Your task to perform on an android device: Open notification settings Image 0: 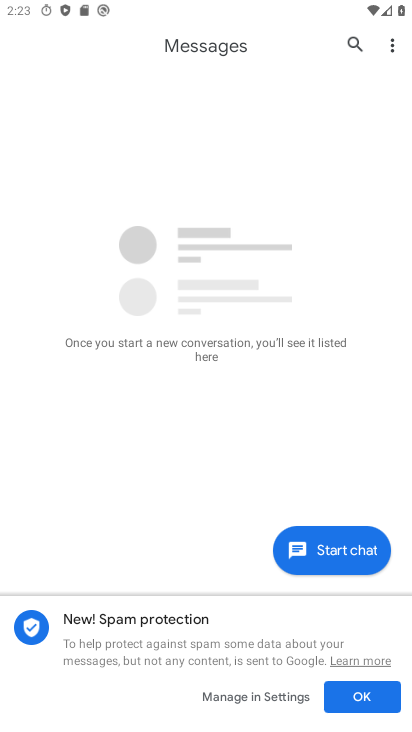
Step 0: press home button
Your task to perform on an android device: Open notification settings Image 1: 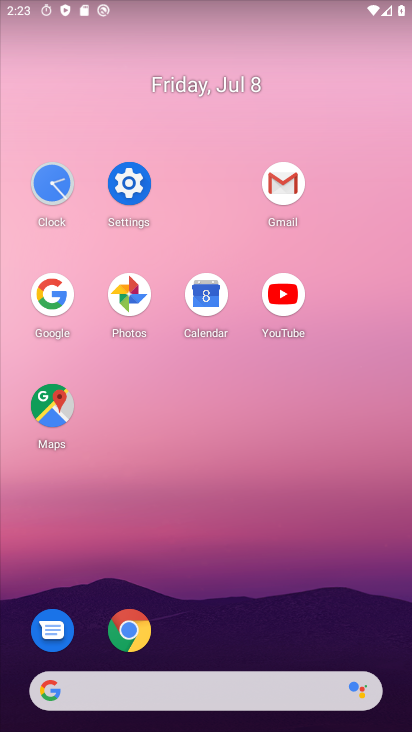
Step 1: click (137, 204)
Your task to perform on an android device: Open notification settings Image 2: 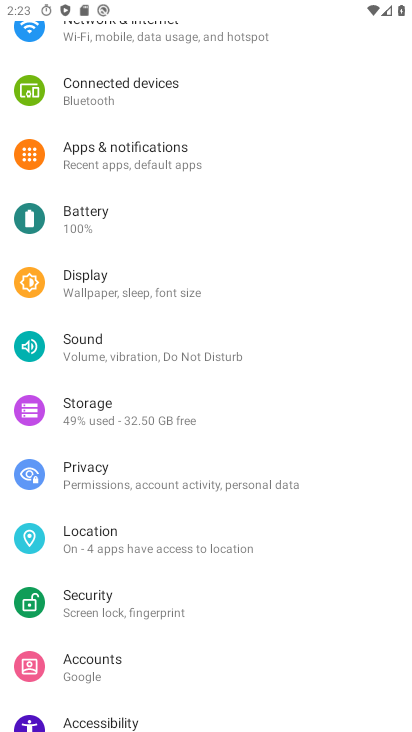
Step 2: click (182, 156)
Your task to perform on an android device: Open notification settings Image 3: 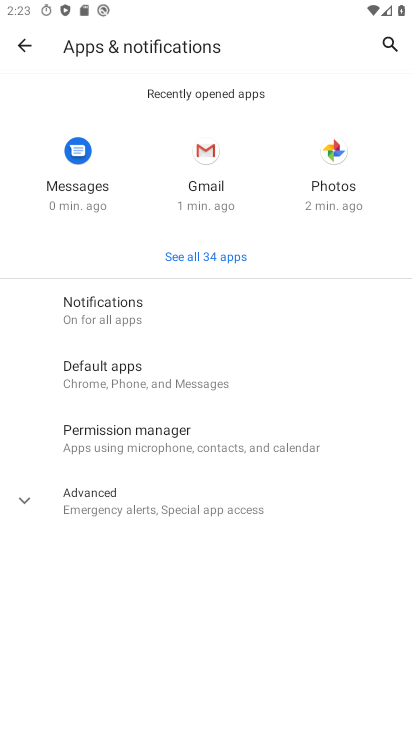
Step 3: task complete